Your task to perform on an android device: add a contact in the contacts app Image 0: 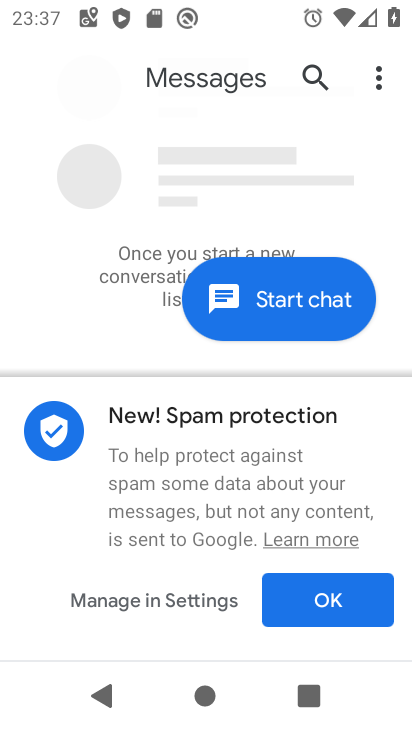
Step 0: press home button
Your task to perform on an android device: add a contact in the contacts app Image 1: 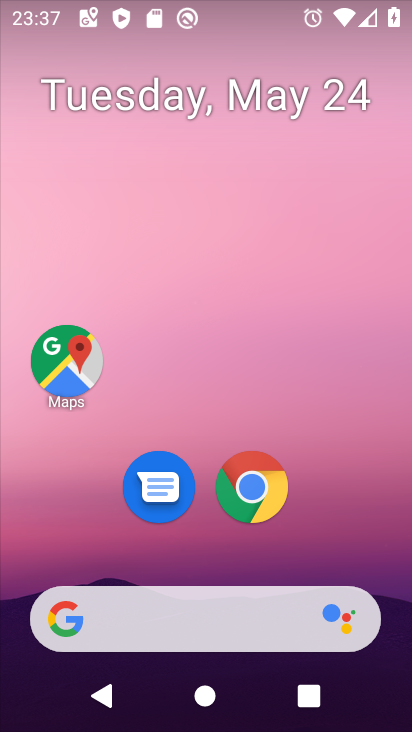
Step 1: drag from (182, 606) to (225, 124)
Your task to perform on an android device: add a contact in the contacts app Image 2: 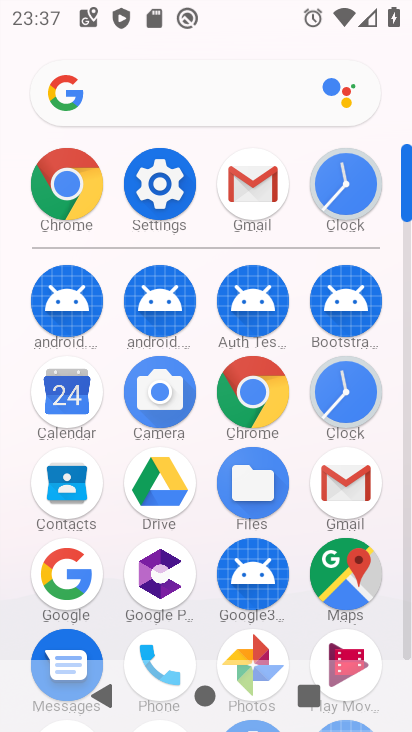
Step 2: click (52, 487)
Your task to perform on an android device: add a contact in the contacts app Image 3: 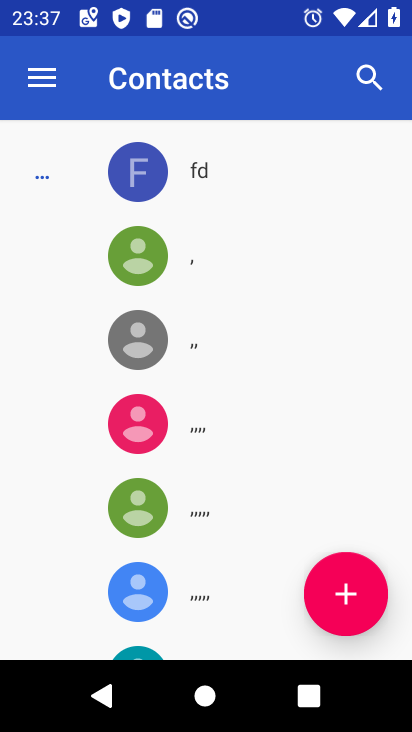
Step 3: click (358, 584)
Your task to perform on an android device: add a contact in the contacts app Image 4: 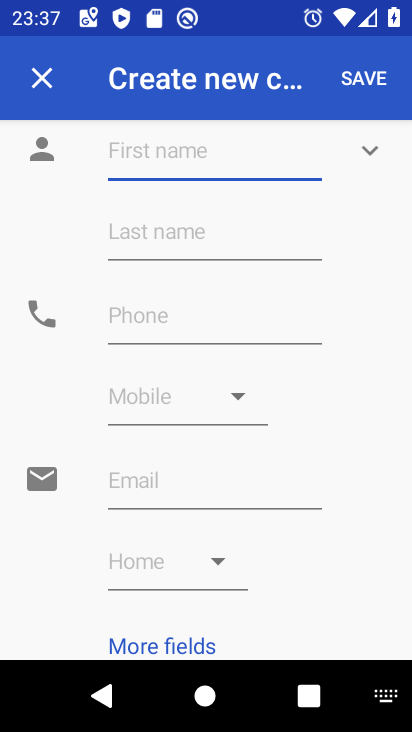
Step 4: click (145, 153)
Your task to perform on an android device: add a contact in the contacts app Image 5: 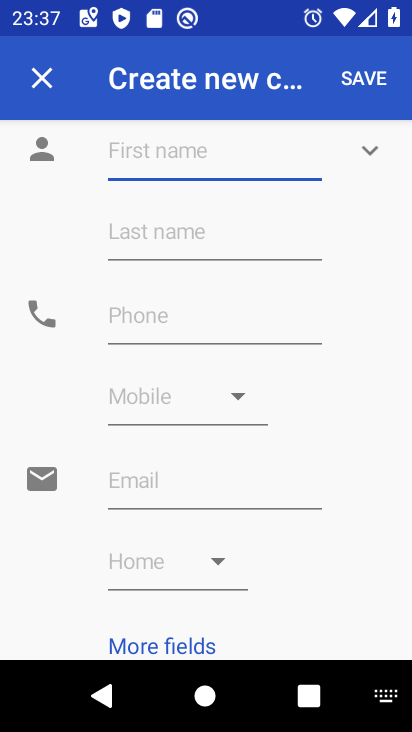
Step 5: type "vdfd"
Your task to perform on an android device: add a contact in the contacts app Image 6: 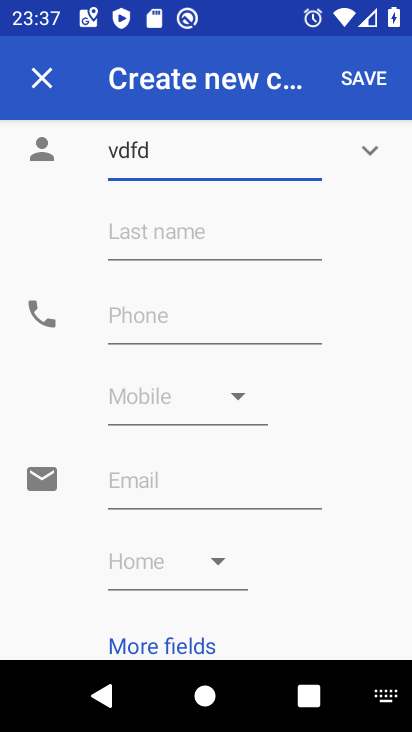
Step 6: click (124, 306)
Your task to perform on an android device: add a contact in the contacts app Image 7: 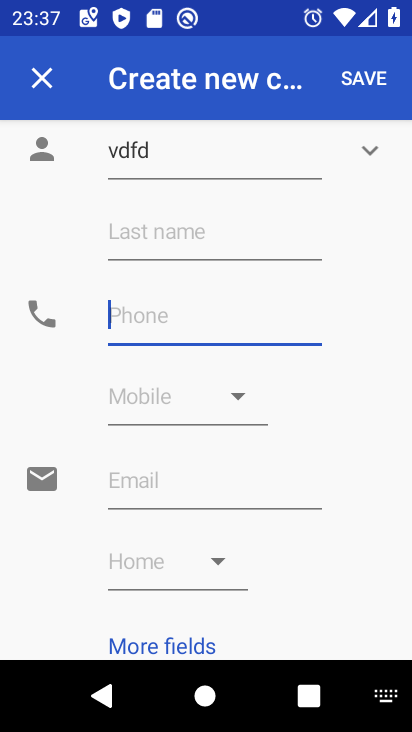
Step 7: type "566565"
Your task to perform on an android device: add a contact in the contacts app Image 8: 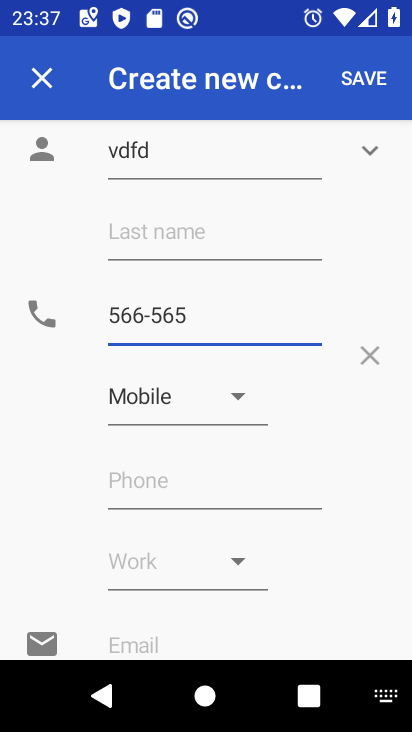
Step 8: click (369, 79)
Your task to perform on an android device: add a contact in the contacts app Image 9: 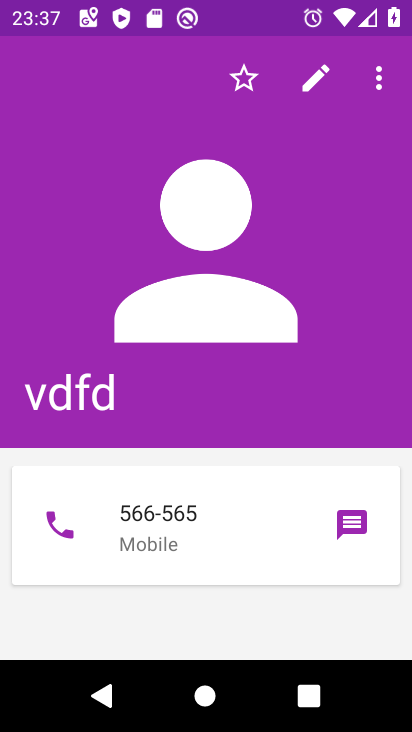
Step 9: task complete